Your task to perform on an android device: delete a single message in the gmail app Image 0: 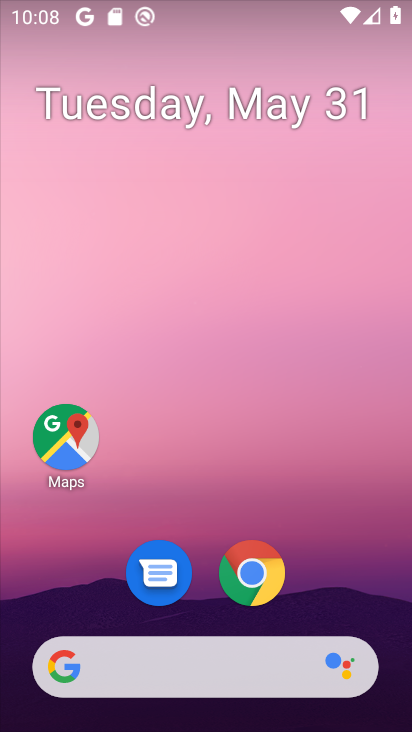
Step 0: drag from (66, 632) to (215, 9)
Your task to perform on an android device: delete a single message in the gmail app Image 1: 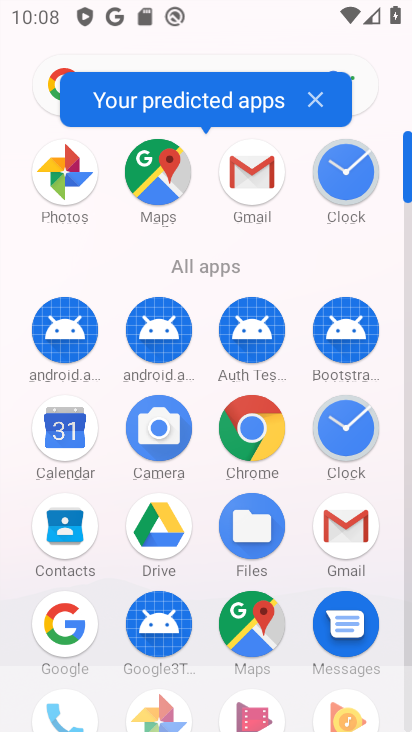
Step 1: click (331, 541)
Your task to perform on an android device: delete a single message in the gmail app Image 2: 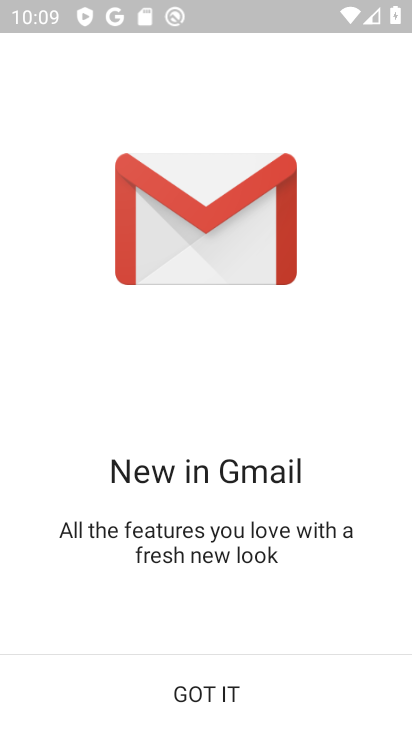
Step 2: click (254, 694)
Your task to perform on an android device: delete a single message in the gmail app Image 3: 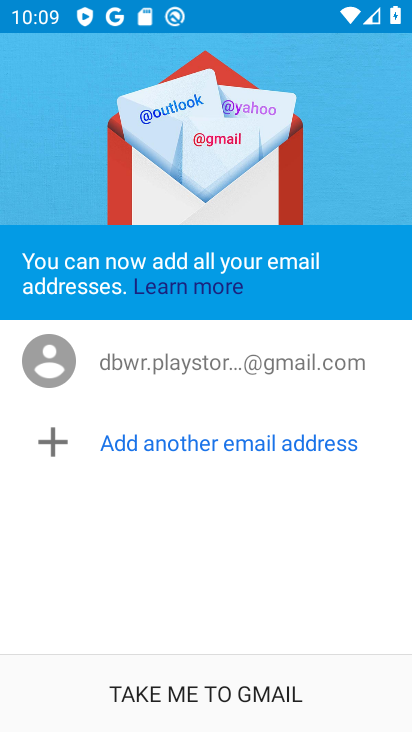
Step 3: click (261, 688)
Your task to perform on an android device: delete a single message in the gmail app Image 4: 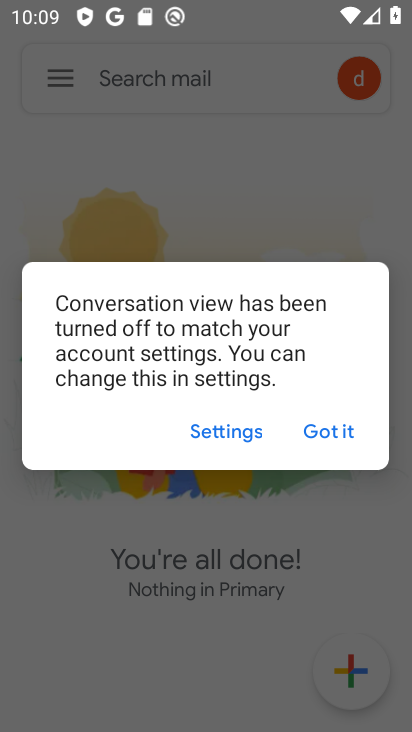
Step 4: click (310, 417)
Your task to perform on an android device: delete a single message in the gmail app Image 5: 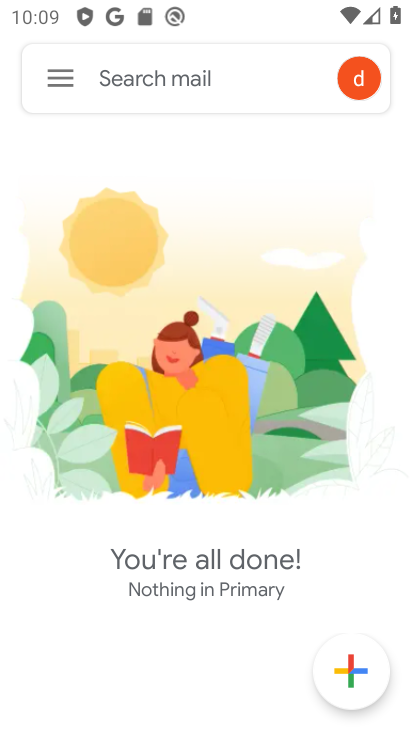
Step 5: click (60, 77)
Your task to perform on an android device: delete a single message in the gmail app Image 6: 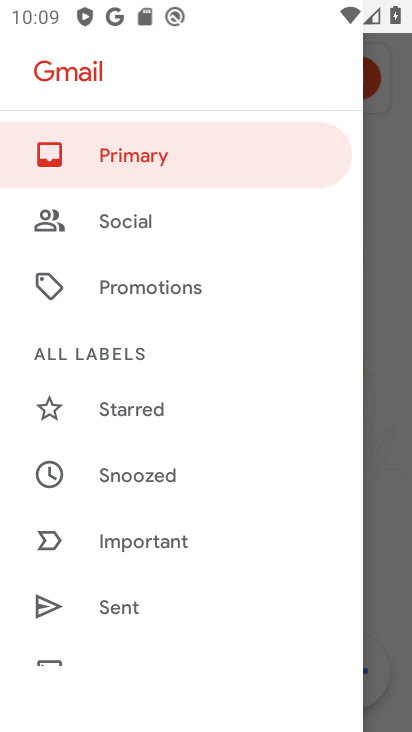
Step 6: drag from (150, 623) to (253, 281)
Your task to perform on an android device: delete a single message in the gmail app Image 7: 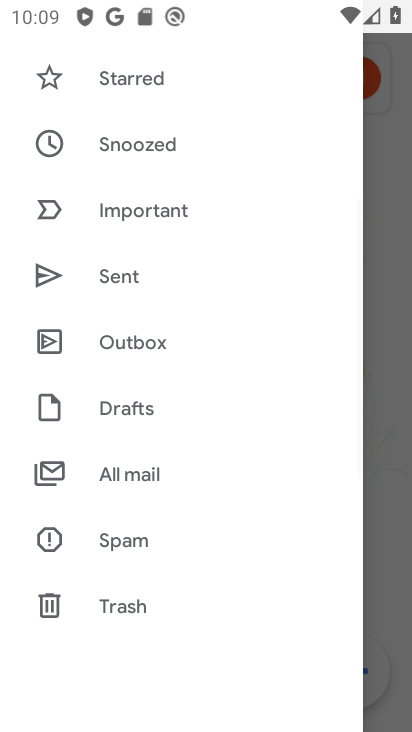
Step 7: click (179, 493)
Your task to perform on an android device: delete a single message in the gmail app Image 8: 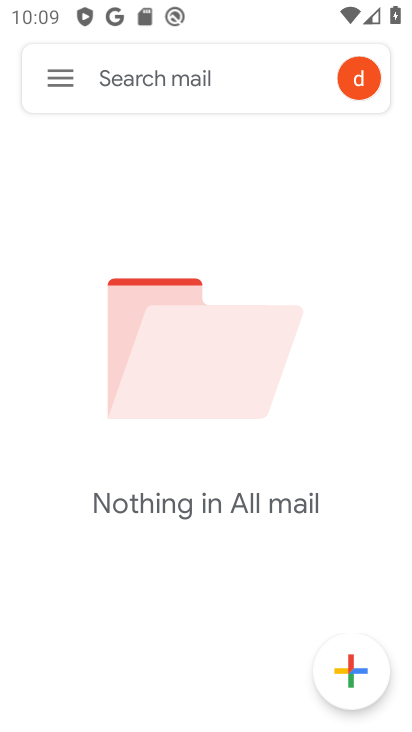
Step 8: task complete